Your task to perform on an android device: Clear the cart on ebay. Add "macbook pro 13 inch" to the cart on ebay, then select checkout. Image 0: 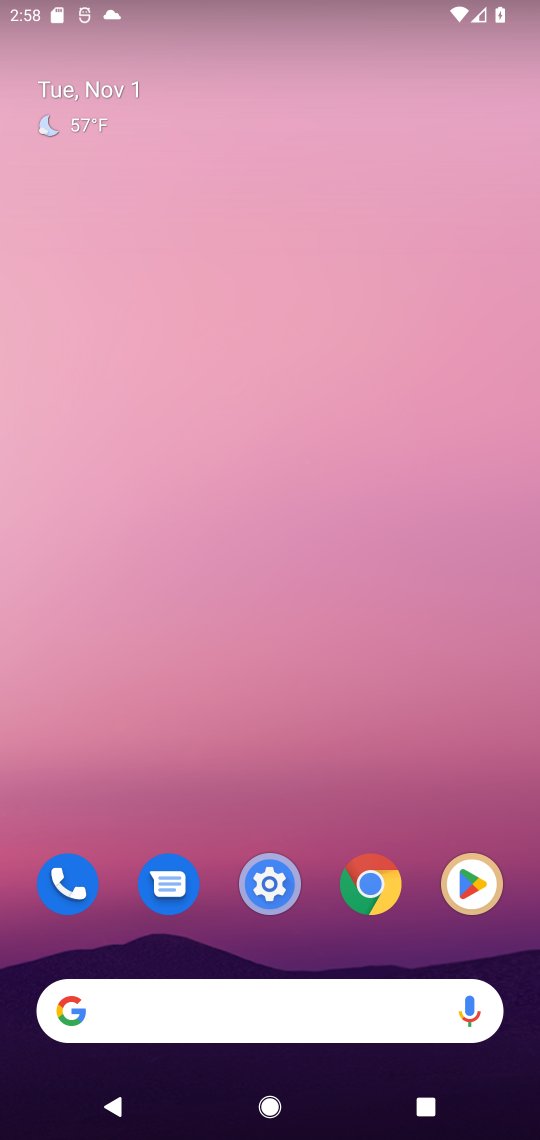
Step 0: press home button
Your task to perform on an android device: Clear the cart on ebay. Add "macbook pro 13 inch" to the cart on ebay, then select checkout. Image 1: 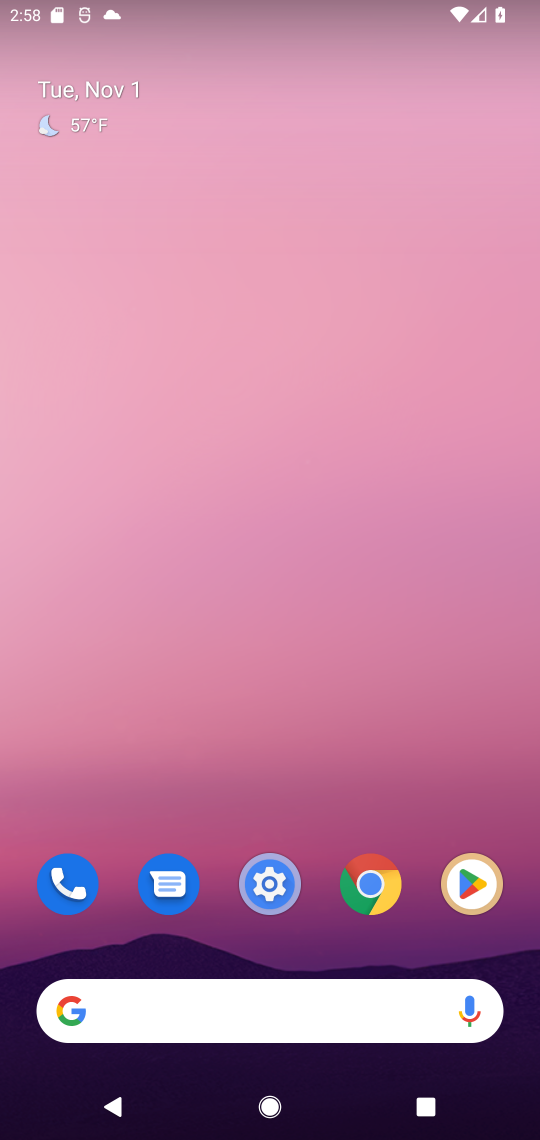
Step 1: click (116, 1007)
Your task to perform on an android device: Clear the cart on ebay. Add "macbook pro 13 inch" to the cart on ebay, then select checkout. Image 2: 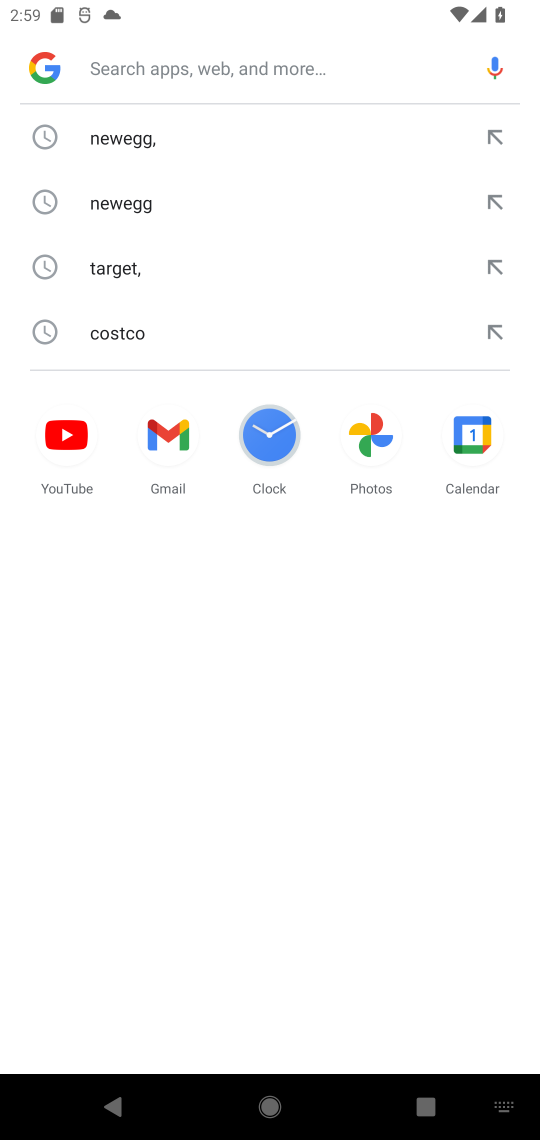
Step 2: type " ebay"
Your task to perform on an android device: Clear the cart on ebay. Add "macbook pro 13 inch" to the cart on ebay, then select checkout. Image 3: 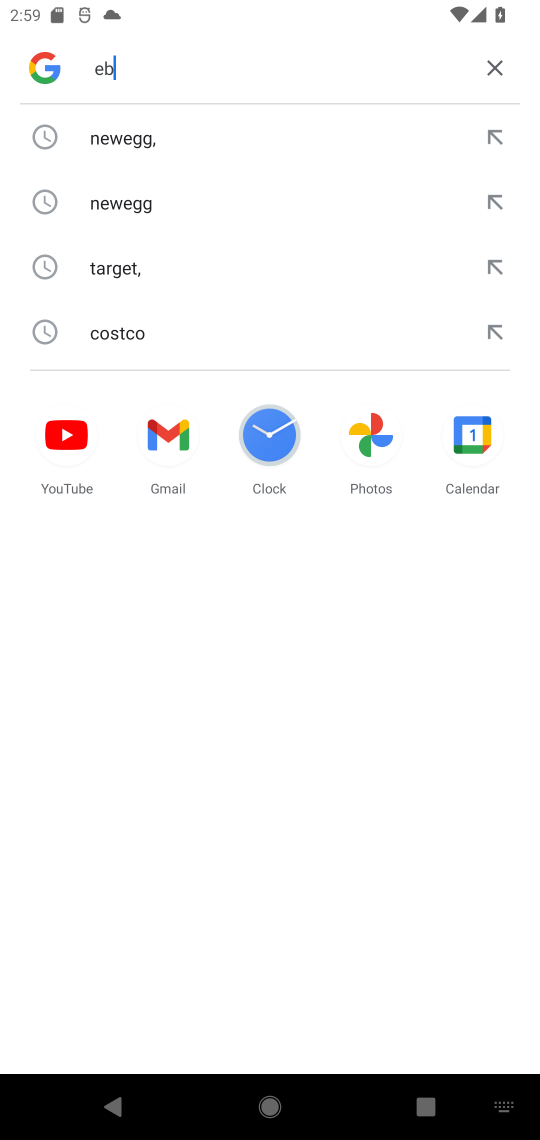
Step 3: press enter
Your task to perform on an android device: Clear the cart on ebay. Add "macbook pro 13 inch" to the cart on ebay, then select checkout. Image 4: 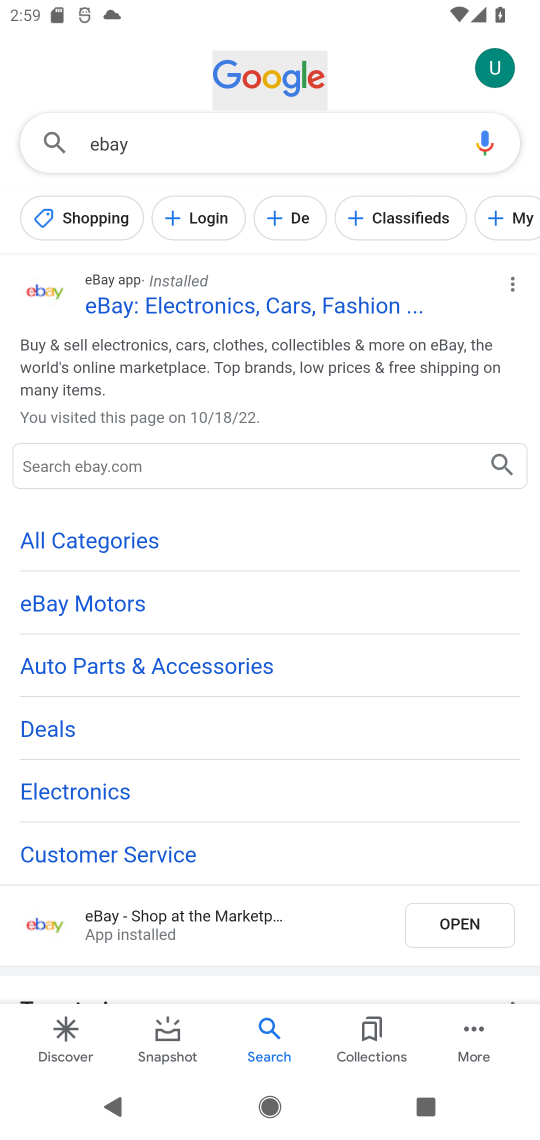
Step 4: click (267, 301)
Your task to perform on an android device: Clear the cart on ebay. Add "macbook pro 13 inch" to the cart on ebay, then select checkout. Image 5: 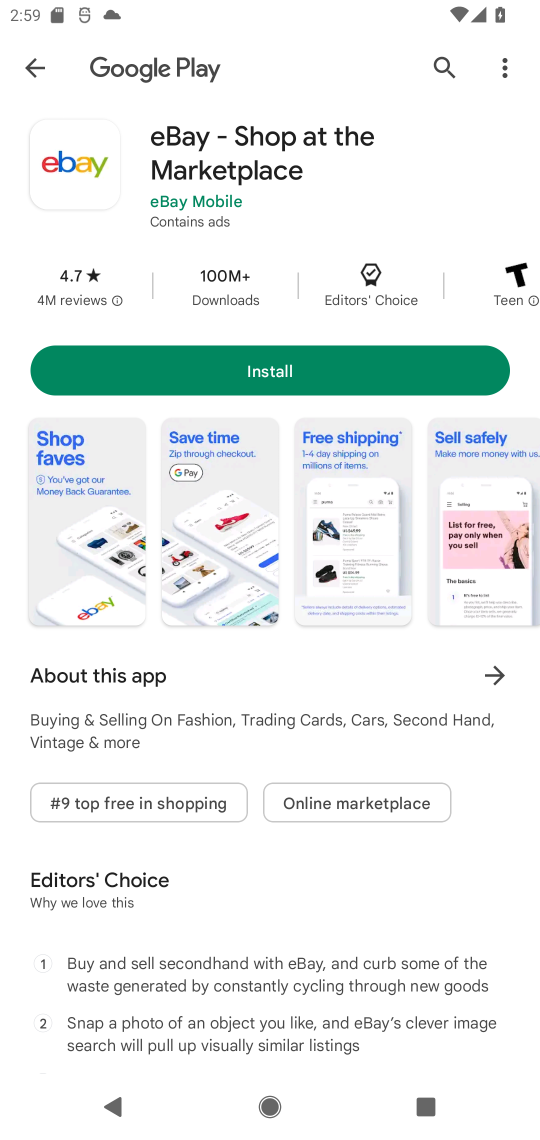
Step 5: click (29, 60)
Your task to perform on an android device: Clear the cart on ebay. Add "macbook pro 13 inch" to the cart on ebay, then select checkout. Image 6: 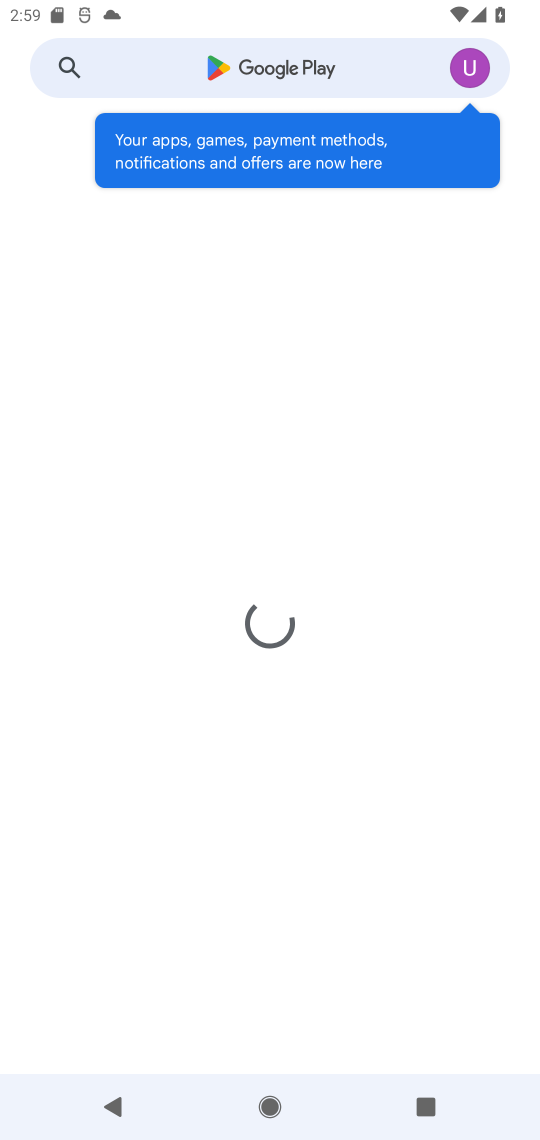
Step 6: press back button
Your task to perform on an android device: Clear the cart on ebay. Add "macbook pro 13 inch" to the cart on ebay, then select checkout. Image 7: 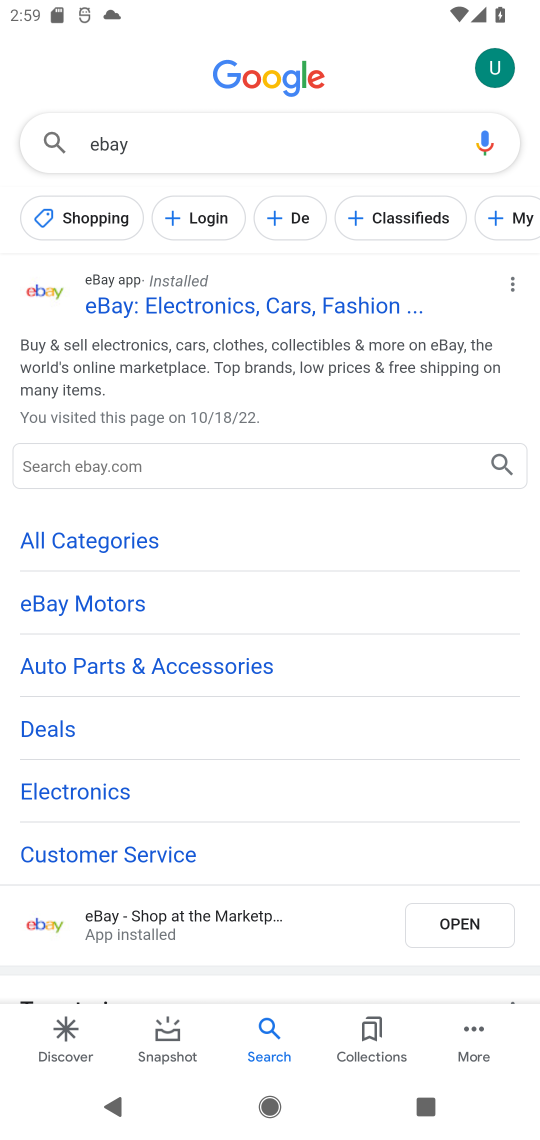
Step 7: click (67, 531)
Your task to perform on an android device: Clear the cart on ebay. Add "macbook pro 13 inch" to the cart on ebay, then select checkout. Image 8: 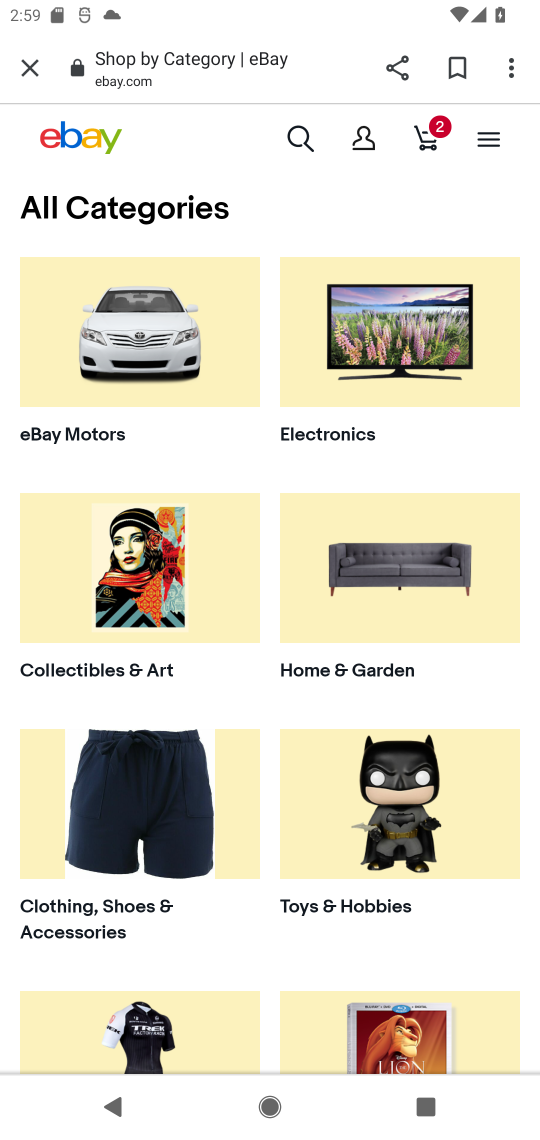
Step 8: click (435, 135)
Your task to perform on an android device: Clear the cart on ebay. Add "macbook pro 13 inch" to the cart on ebay, then select checkout. Image 9: 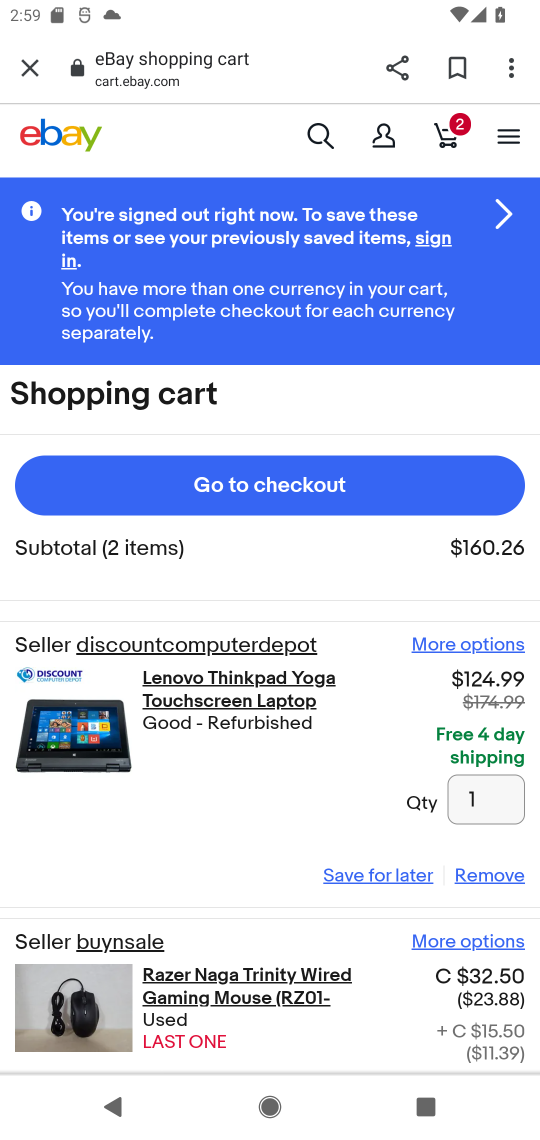
Step 9: click (483, 874)
Your task to perform on an android device: Clear the cart on ebay. Add "macbook pro 13 inch" to the cart on ebay, then select checkout. Image 10: 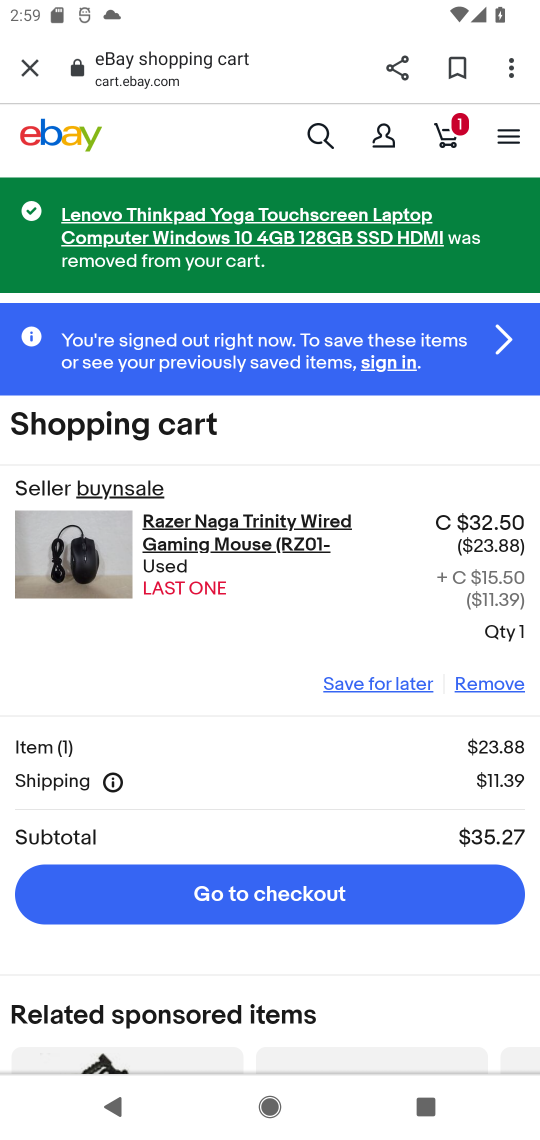
Step 10: click (480, 682)
Your task to perform on an android device: Clear the cart on ebay. Add "macbook pro 13 inch" to the cart on ebay, then select checkout. Image 11: 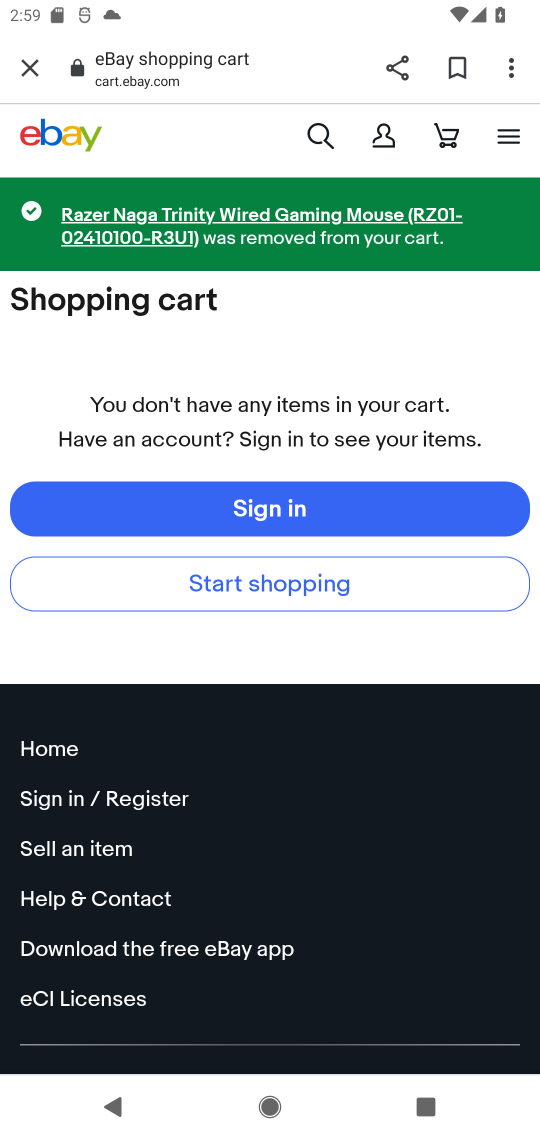
Step 11: click (318, 129)
Your task to perform on an android device: Clear the cart on ebay. Add "macbook pro 13 inch" to the cart on ebay, then select checkout. Image 12: 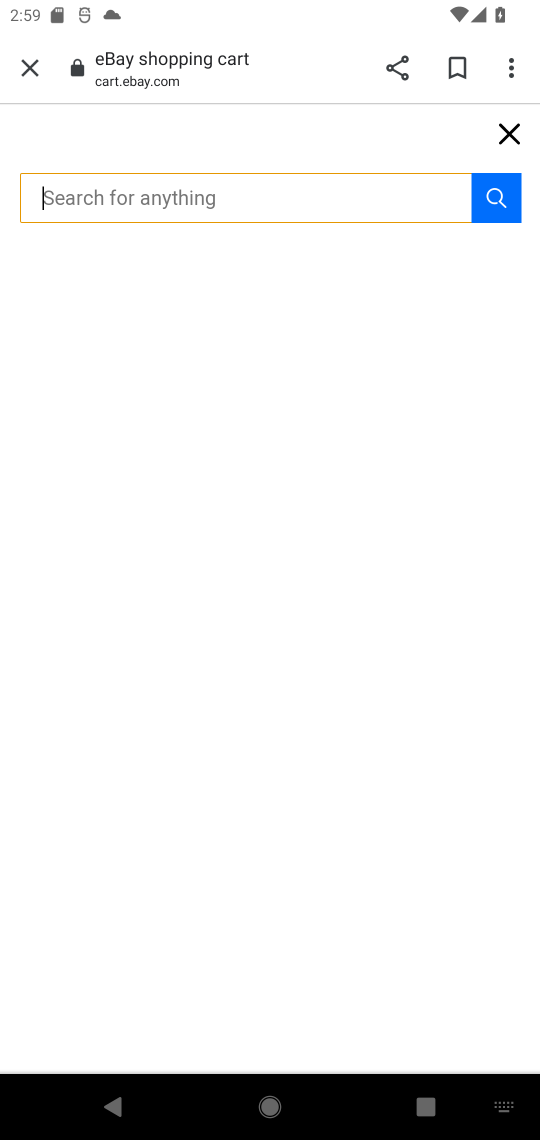
Step 12: click (199, 201)
Your task to perform on an android device: Clear the cart on ebay. Add "macbook pro 13 inch" to the cart on ebay, then select checkout. Image 13: 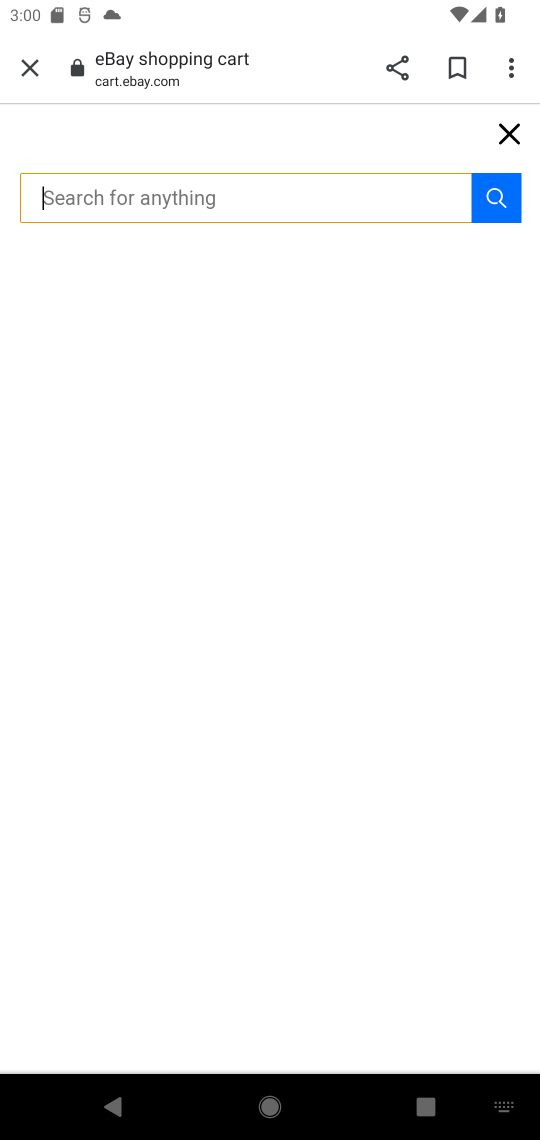
Step 13: type "macbook pro 13 inch"
Your task to perform on an android device: Clear the cart on ebay. Add "macbook pro 13 inch" to the cart on ebay, then select checkout. Image 14: 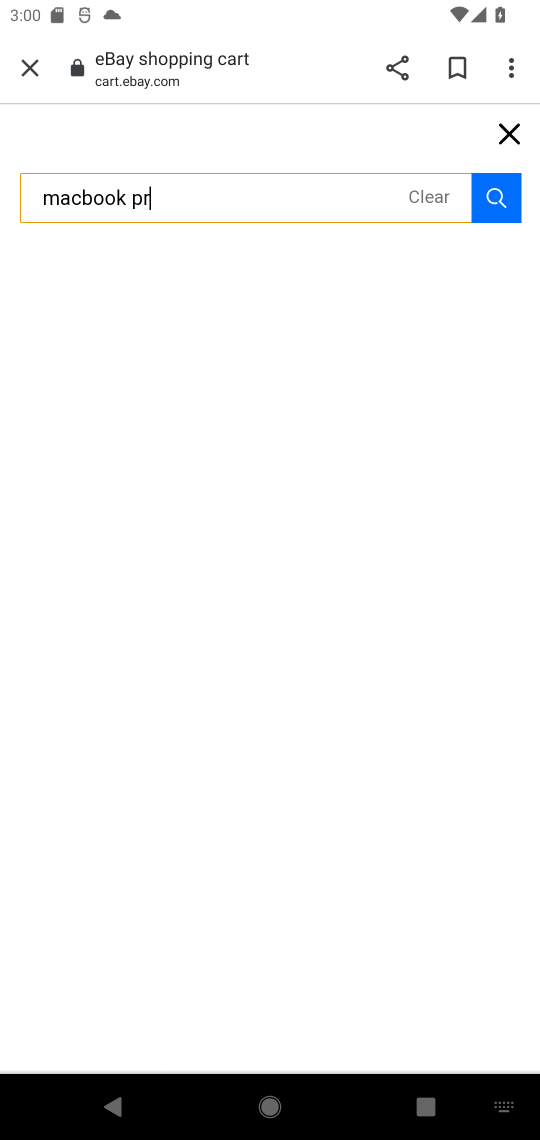
Step 14: press enter
Your task to perform on an android device: Clear the cart on ebay. Add "macbook pro 13 inch" to the cart on ebay, then select checkout. Image 15: 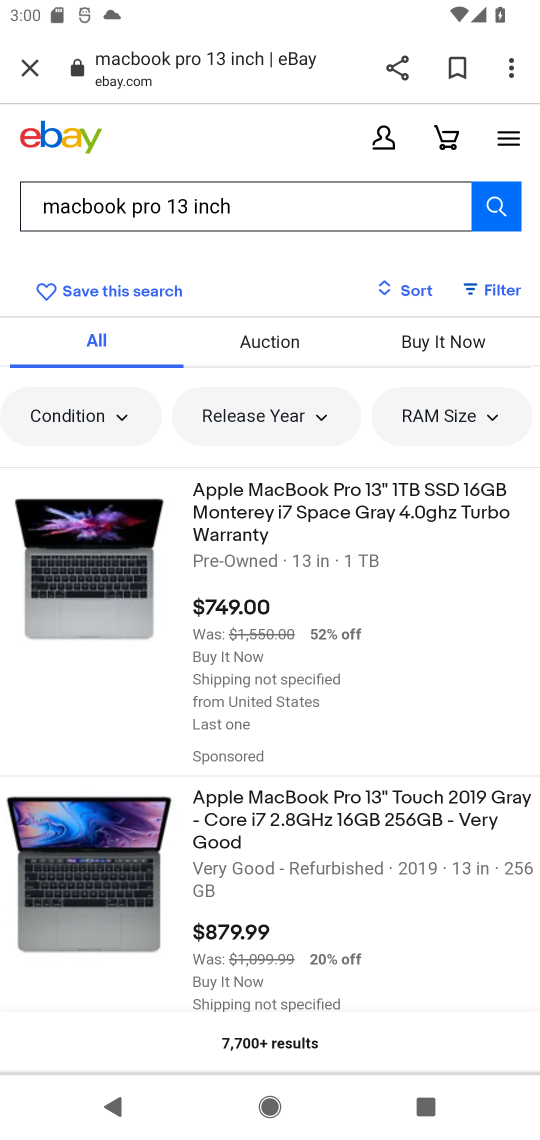
Step 15: click (228, 528)
Your task to perform on an android device: Clear the cart on ebay. Add "macbook pro 13 inch" to the cart on ebay, then select checkout. Image 16: 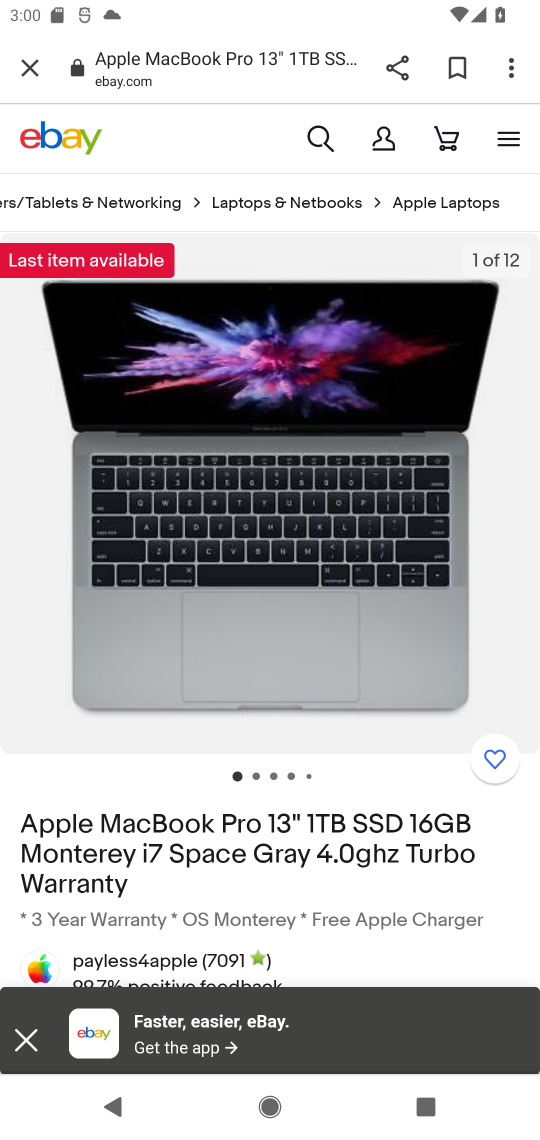
Step 16: drag from (329, 890) to (340, 364)
Your task to perform on an android device: Clear the cart on ebay. Add "macbook pro 13 inch" to the cart on ebay, then select checkout. Image 17: 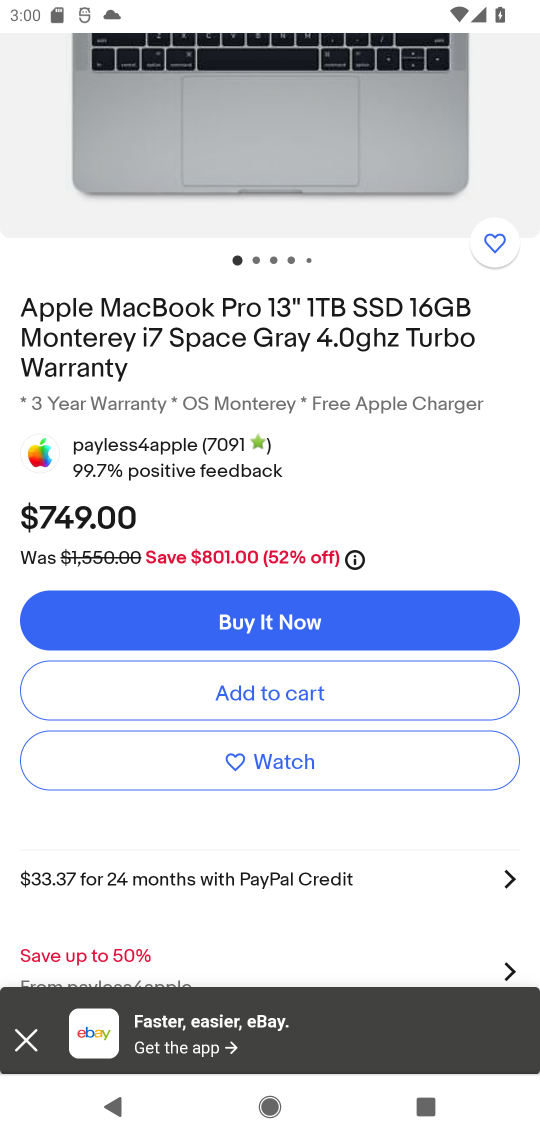
Step 17: click (235, 697)
Your task to perform on an android device: Clear the cart on ebay. Add "macbook pro 13 inch" to the cart on ebay, then select checkout. Image 18: 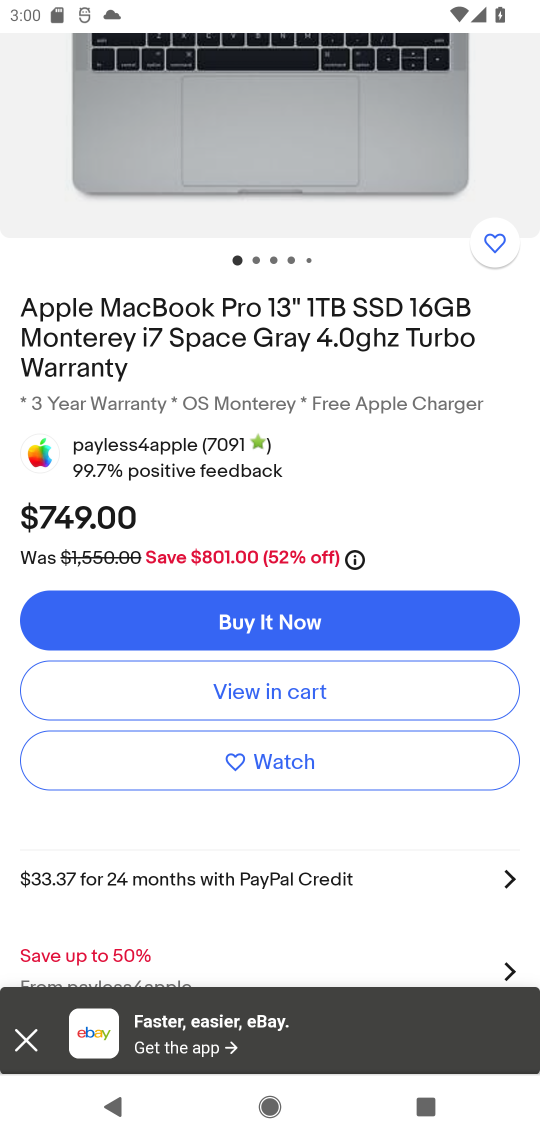
Step 18: click (266, 688)
Your task to perform on an android device: Clear the cart on ebay. Add "macbook pro 13 inch" to the cart on ebay, then select checkout. Image 19: 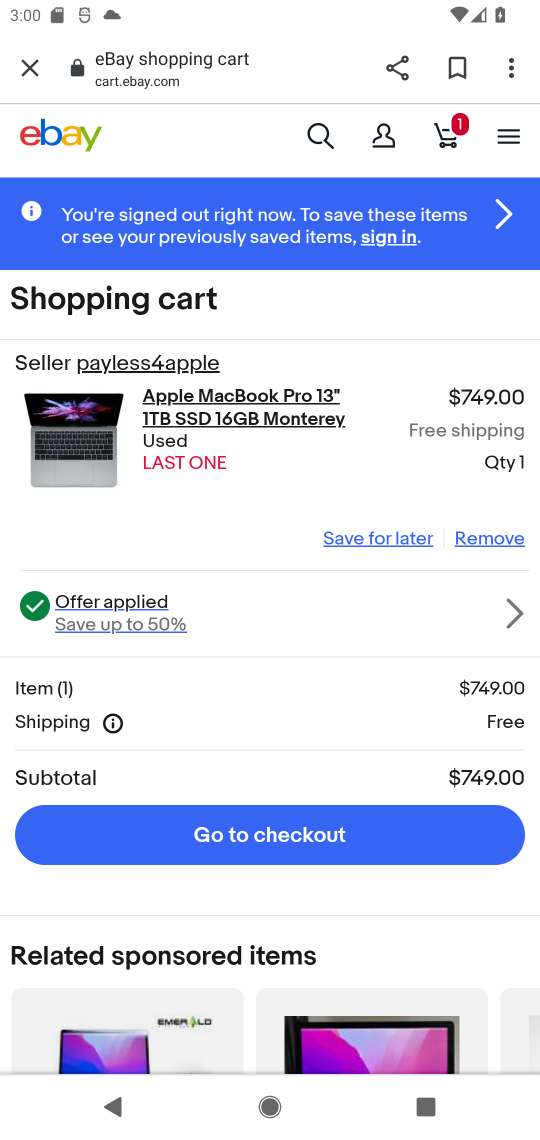
Step 19: click (229, 828)
Your task to perform on an android device: Clear the cart on ebay. Add "macbook pro 13 inch" to the cart on ebay, then select checkout. Image 20: 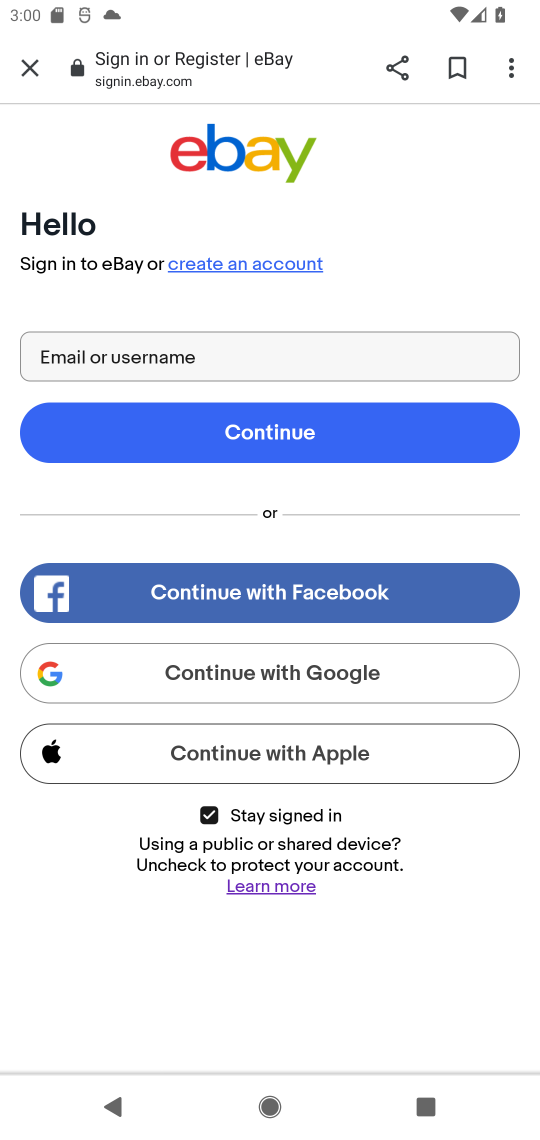
Step 20: task complete